Your task to perform on an android device: see sites visited before in the chrome app Image 0: 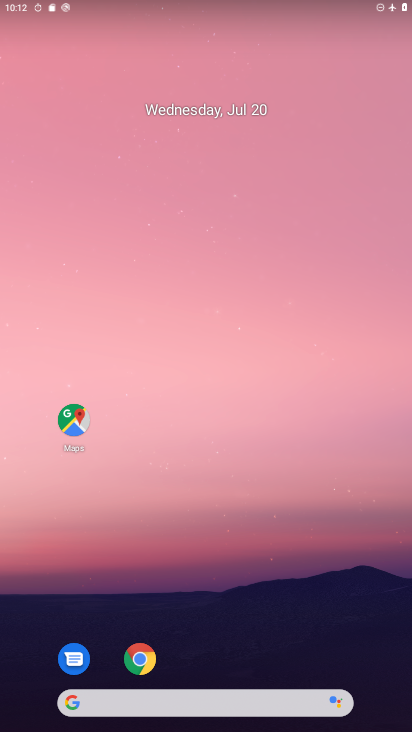
Step 0: drag from (219, 622) to (149, 8)
Your task to perform on an android device: see sites visited before in the chrome app Image 1: 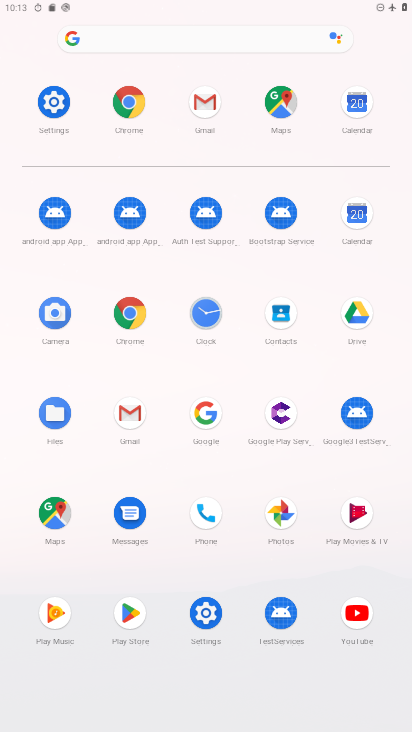
Step 1: click (118, 301)
Your task to perform on an android device: see sites visited before in the chrome app Image 2: 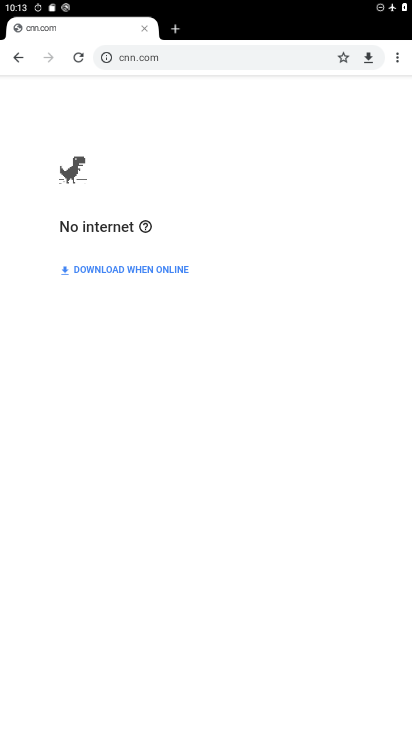
Step 2: task complete